Your task to perform on an android device: Search for vegetarian restaurants on Maps Image 0: 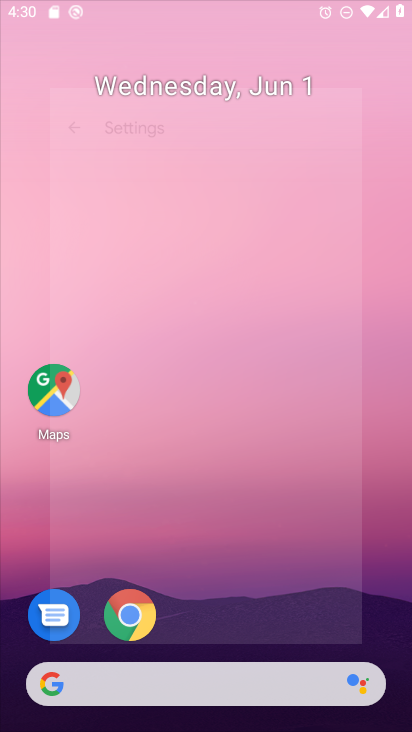
Step 0: press home button
Your task to perform on an android device: Search for vegetarian restaurants on Maps Image 1: 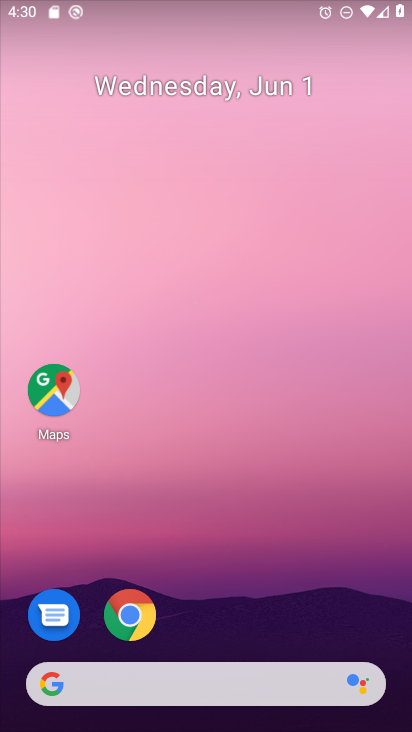
Step 1: click (53, 384)
Your task to perform on an android device: Search for vegetarian restaurants on Maps Image 2: 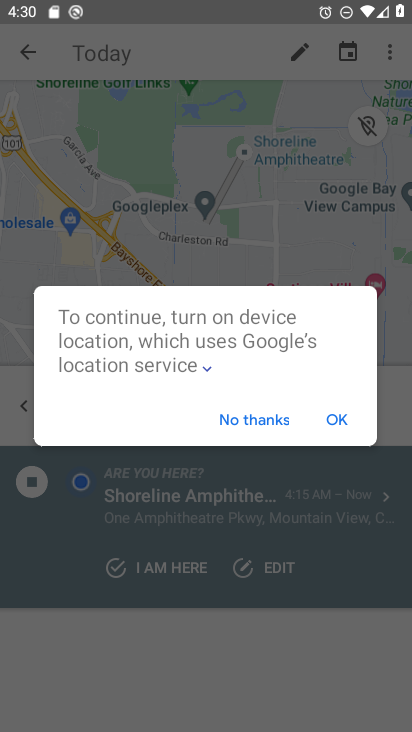
Step 2: press home button
Your task to perform on an android device: Search for vegetarian restaurants on Maps Image 3: 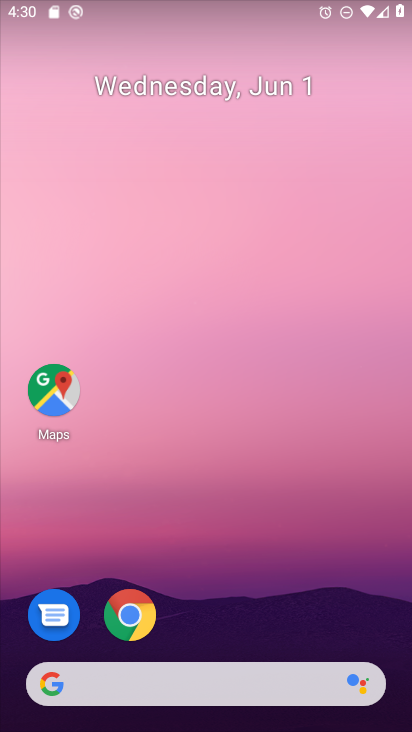
Step 3: click (56, 385)
Your task to perform on an android device: Search for vegetarian restaurants on Maps Image 4: 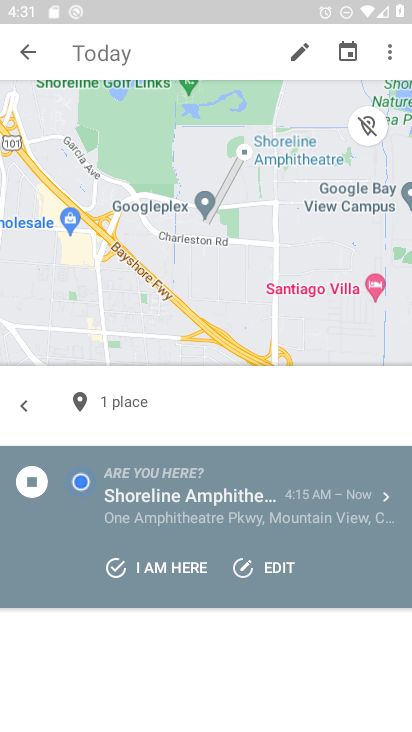
Step 4: click (36, 52)
Your task to perform on an android device: Search for vegetarian restaurants on Maps Image 5: 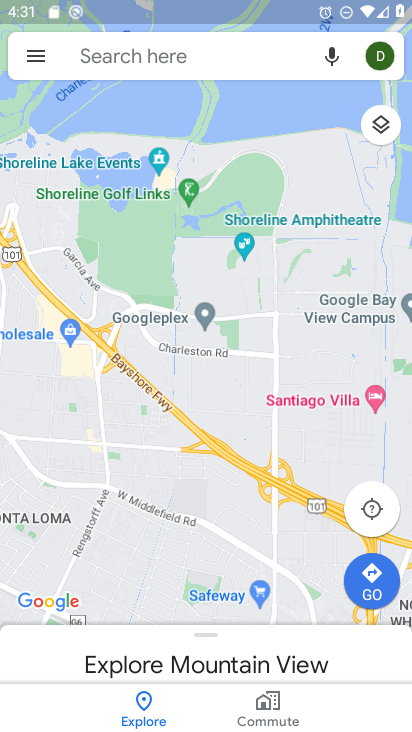
Step 5: click (132, 52)
Your task to perform on an android device: Search for vegetarian restaurants on Maps Image 6: 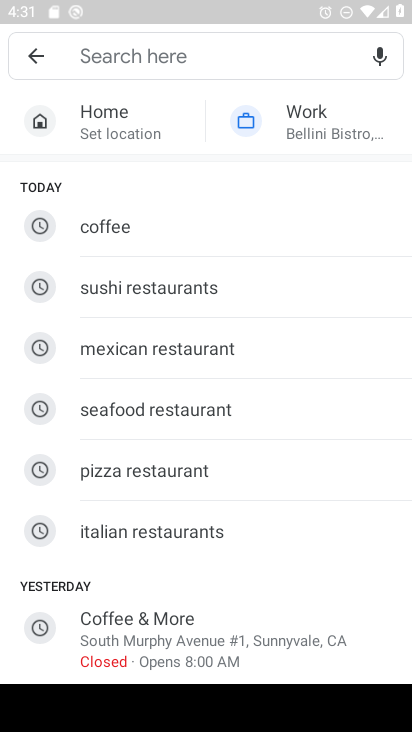
Step 6: type "vegetarian"
Your task to perform on an android device: Search for vegetarian restaurants on Maps Image 7: 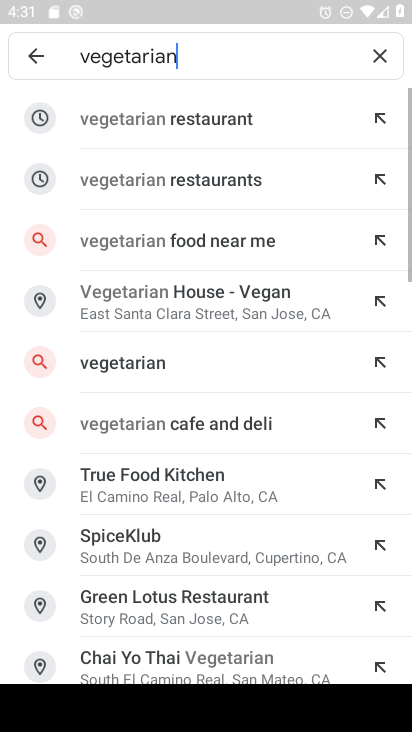
Step 7: click (216, 130)
Your task to perform on an android device: Search for vegetarian restaurants on Maps Image 8: 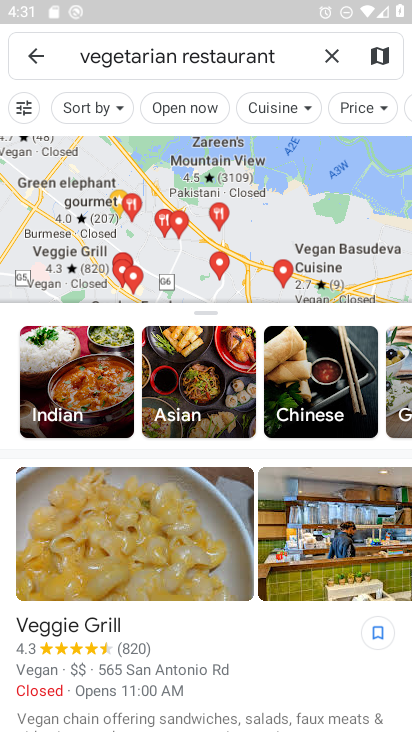
Step 8: task complete